Your task to perform on an android device: Open battery settings Image 0: 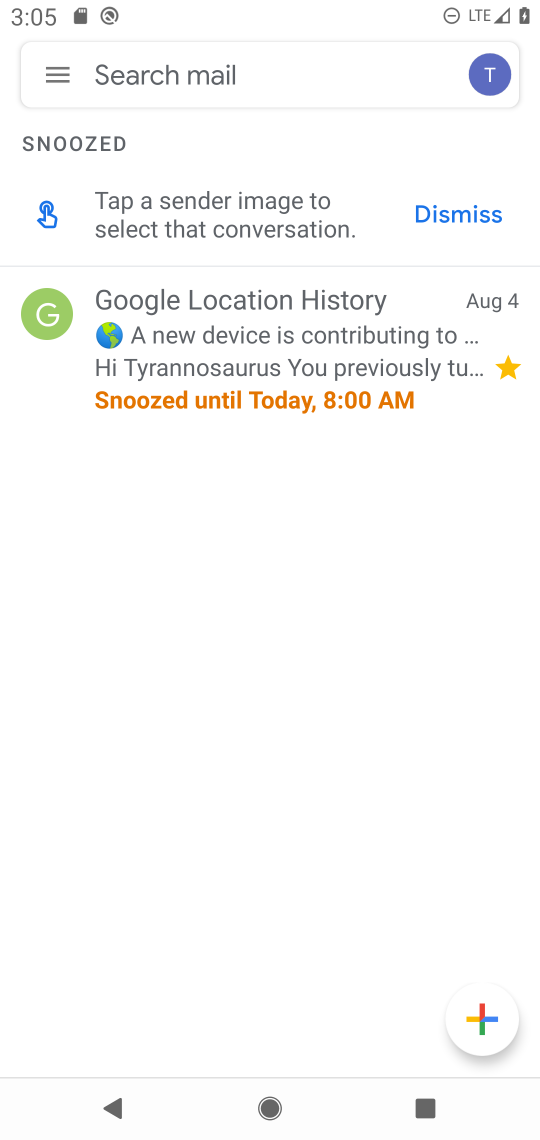
Step 0: press home button
Your task to perform on an android device: Open battery settings Image 1: 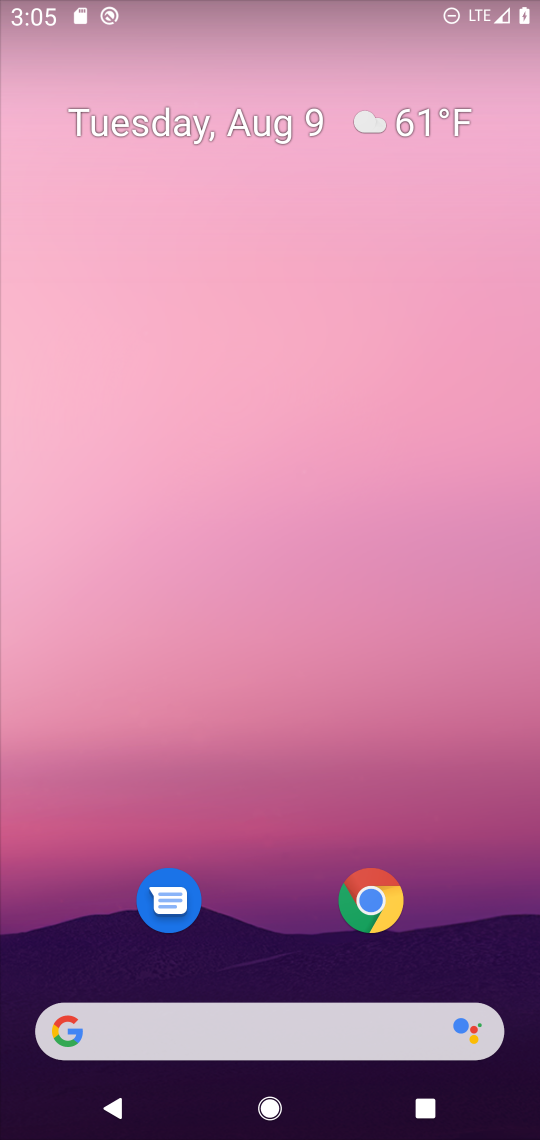
Step 1: drag from (268, 906) to (271, 97)
Your task to perform on an android device: Open battery settings Image 2: 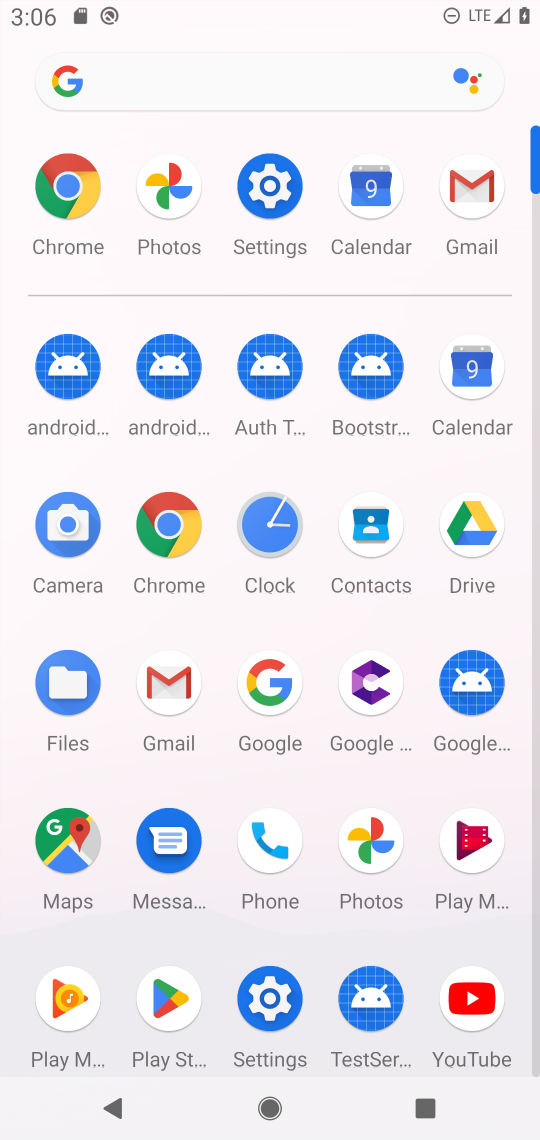
Step 2: click (271, 201)
Your task to perform on an android device: Open battery settings Image 3: 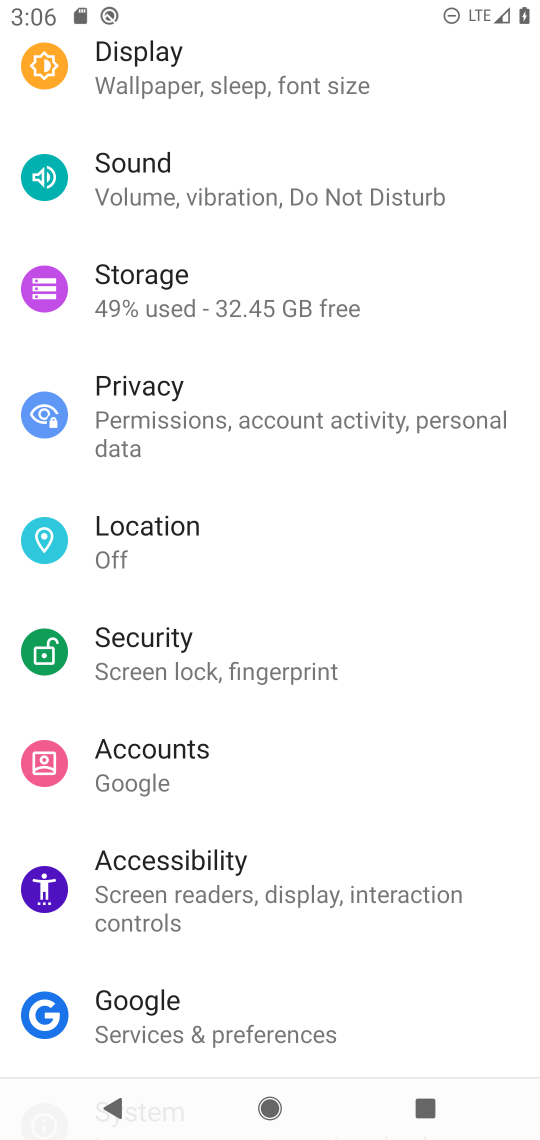
Step 3: drag from (492, 248) to (475, 568)
Your task to perform on an android device: Open battery settings Image 4: 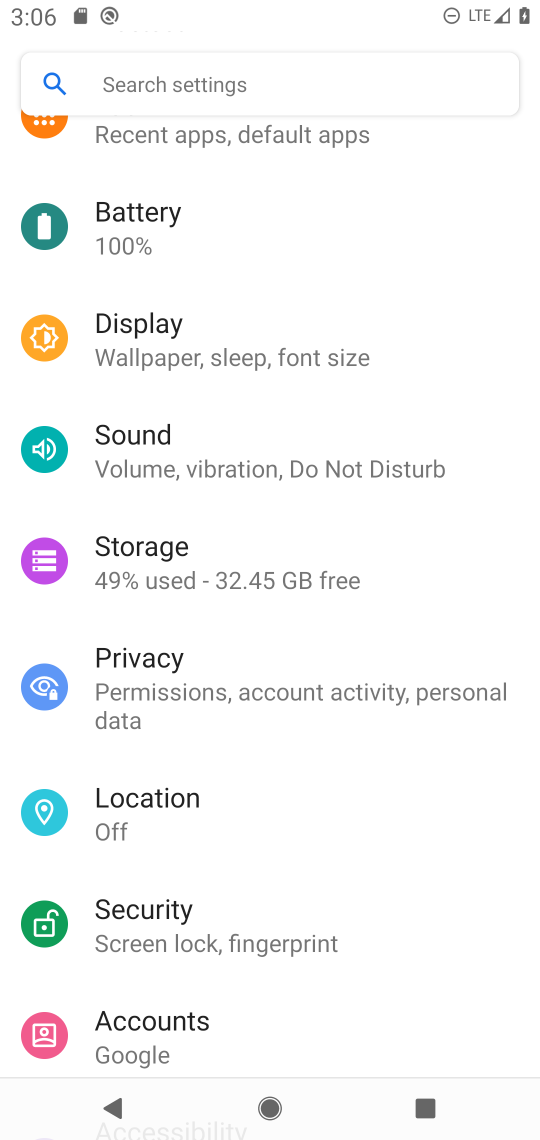
Step 4: drag from (463, 290) to (448, 598)
Your task to perform on an android device: Open battery settings Image 5: 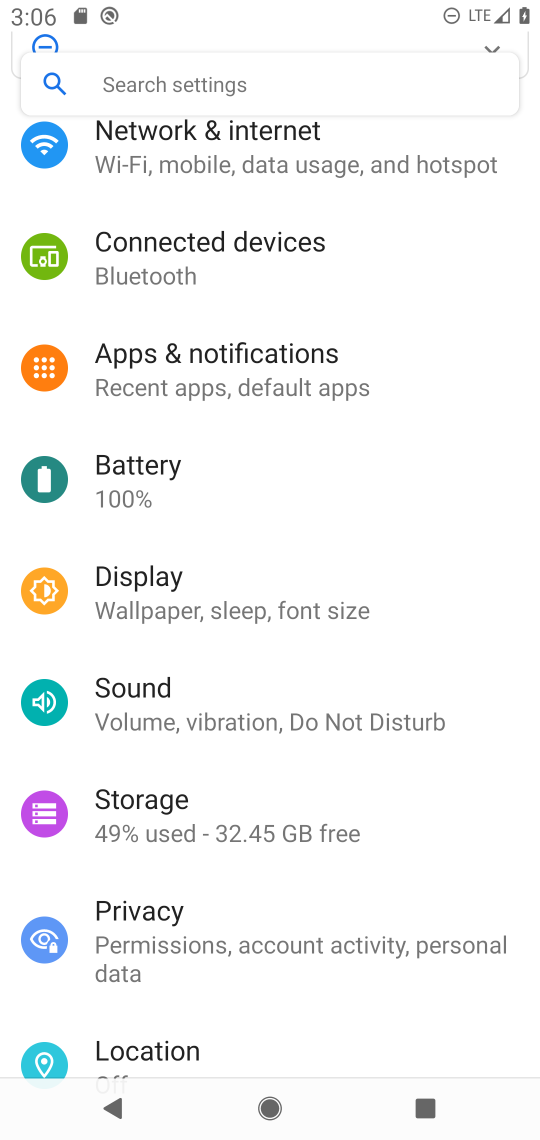
Step 5: drag from (455, 336) to (457, 579)
Your task to perform on an android device: Open battery settings Image 6: 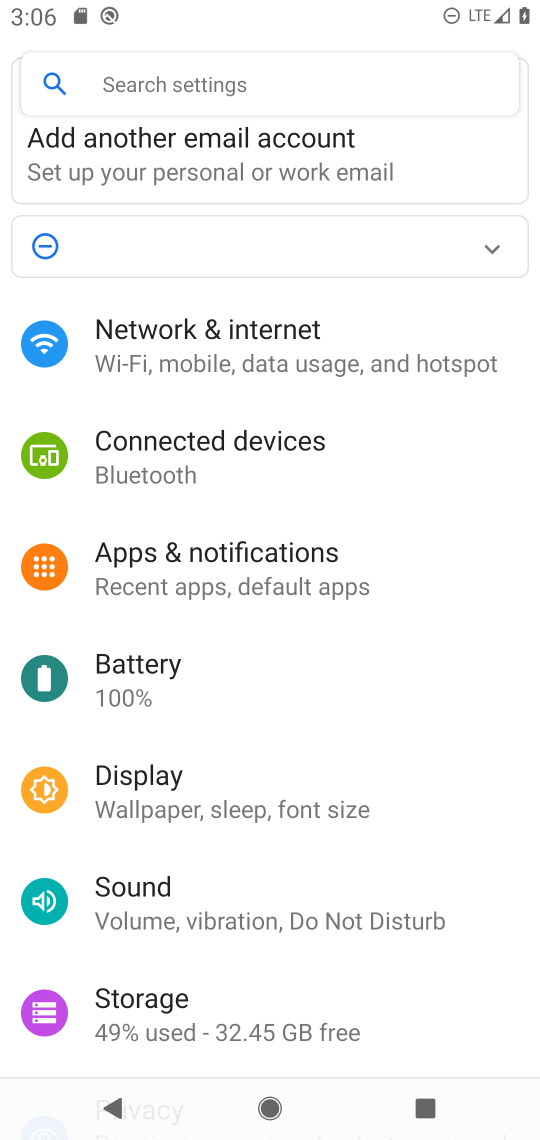
Step 6: click (191, 697)
Your task to perform on an android device: Open battery settings Image 7: 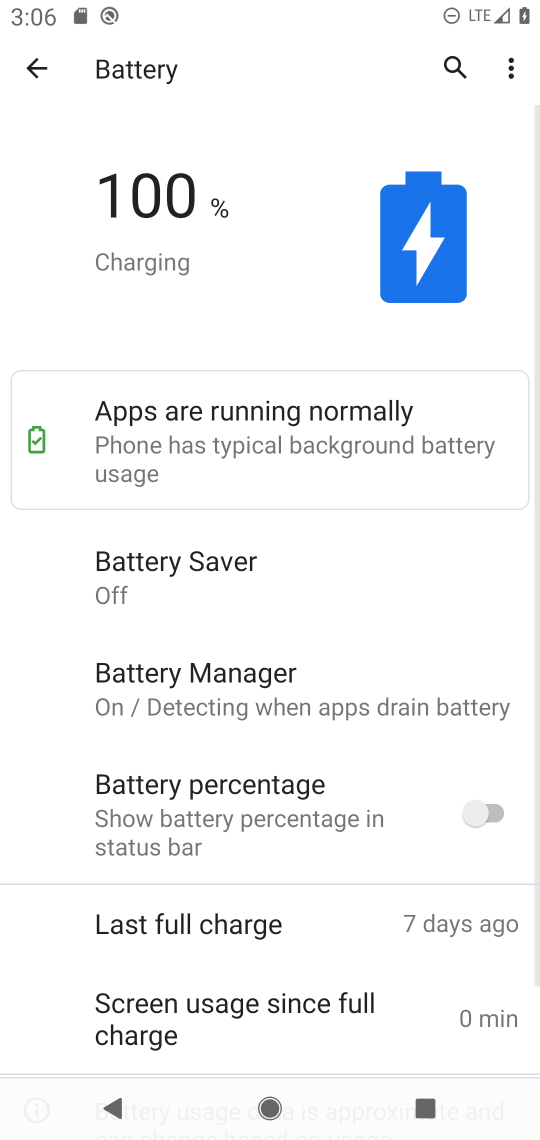
Step 7: task complete